Your task to perform on an android device: Open Google Image 0: 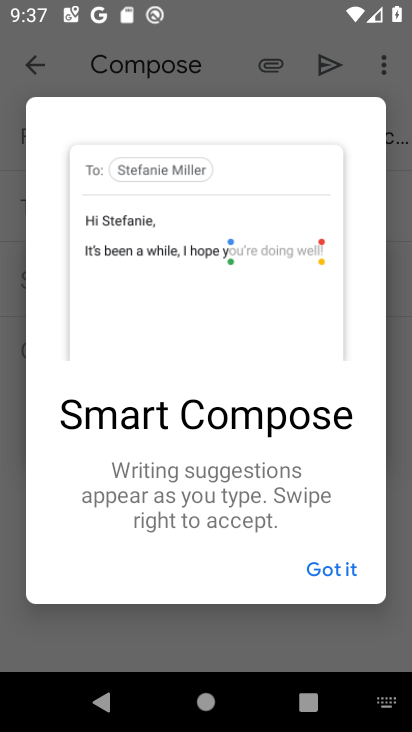
Step 0: press home button
Your task to perform on an android device: Open Google Image 1: 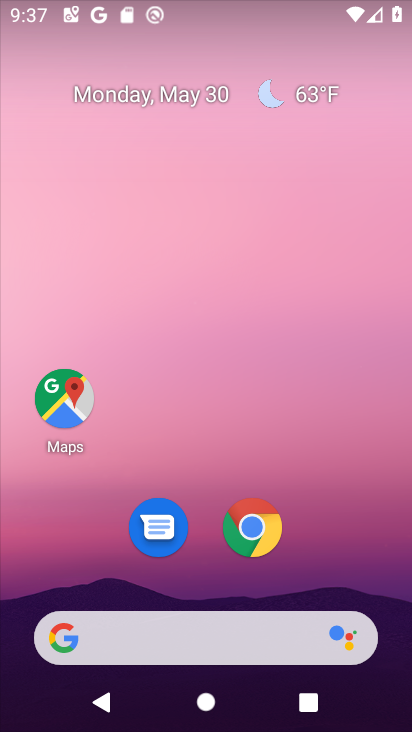
Step 1: drag from (166, 551) to (219, 234)
Your task to perform on an android device: Open Google Image 2: 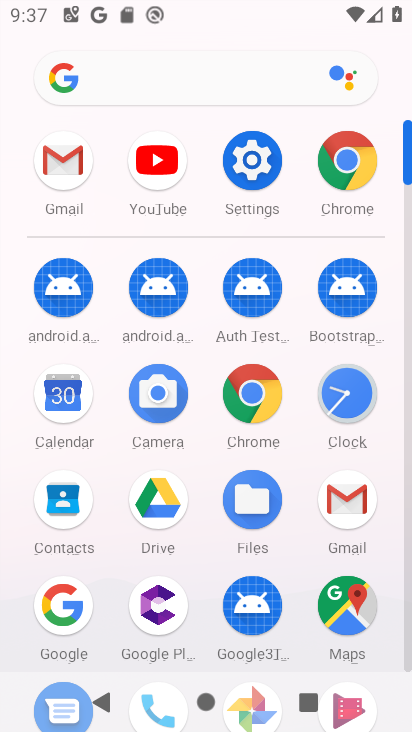
Step 2: click (59, 601)
Your task to perform on an android device: Open Google Image 3: 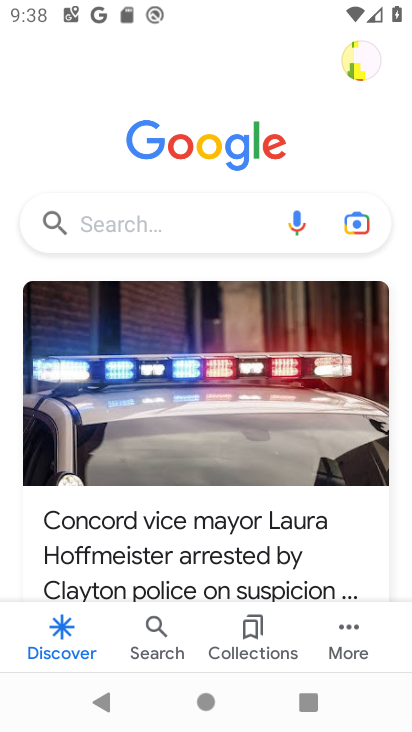
Step 3: task complete